Your task to perform on an android device: Go to calendar. Show me events next week Image 0: 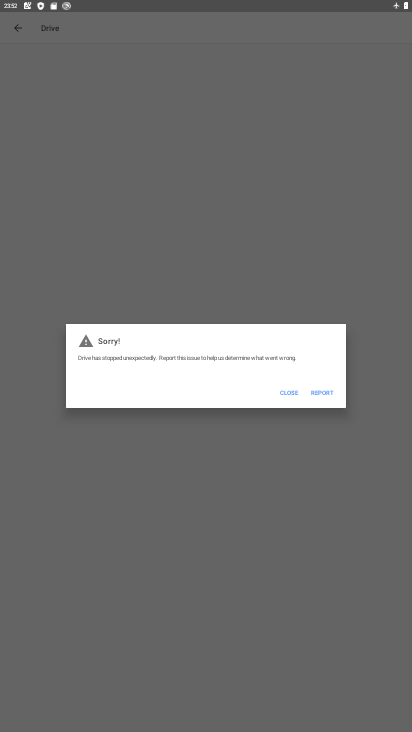
Step 0: press home button
Your task to perform on an android device: Go to calendar. Show me events next week Image 1: 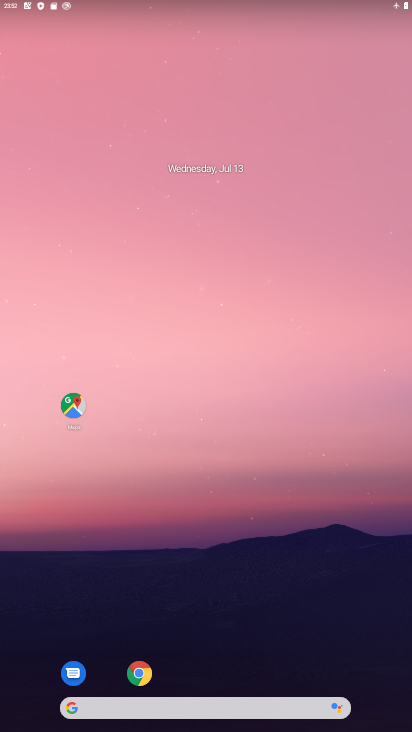
Step 1: drag from (214, 605) to (214, 42)
Your task to perform on an android device: Go to calendar. Show me events next week Image 2: 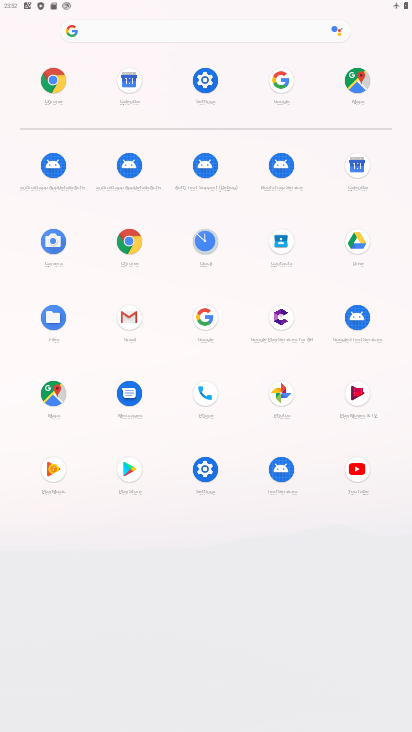
Step 2: click (350, 157)
Your task to perform on an android device: Go to calendar. Show me events next week Image 3: 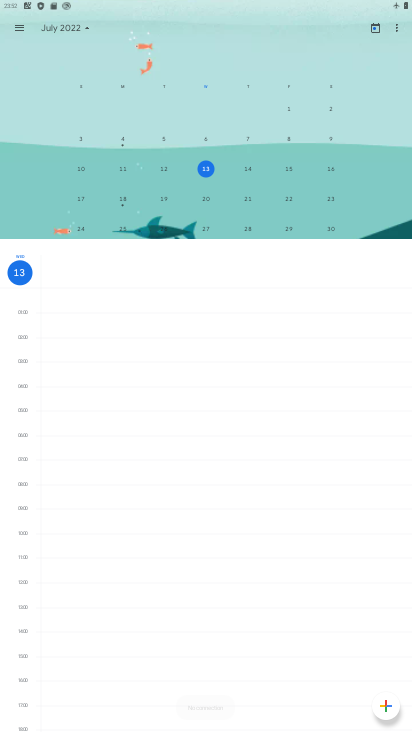
Step 3: click (90, 27)
Your task to perform on an android device: Go to calendar. Show me events next week Image 4: 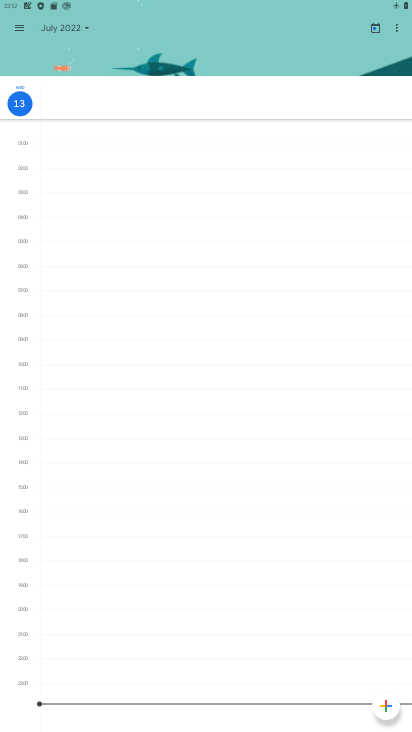
Step 4: task complete